Your task to perform on an android device: turn off javascript in the chrome app Image 0: 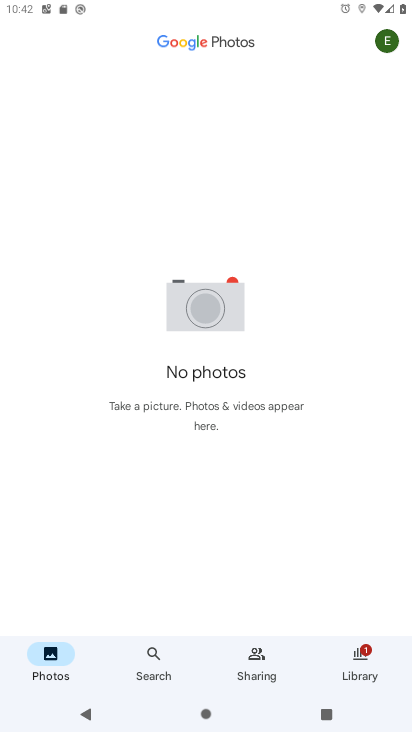
Step 0: press home button
Your task to perform on an android device: turn off javascript in the chrome app Image 1: 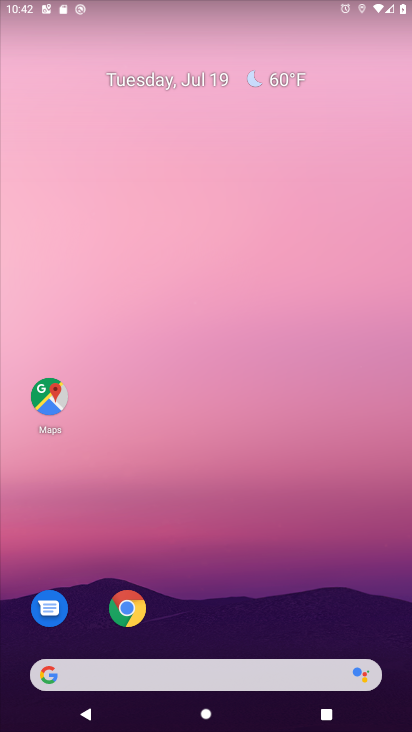
Step 1: click (135, 618)
Your task to perform on an android device: turn off javascript in the chrome app Image 2: 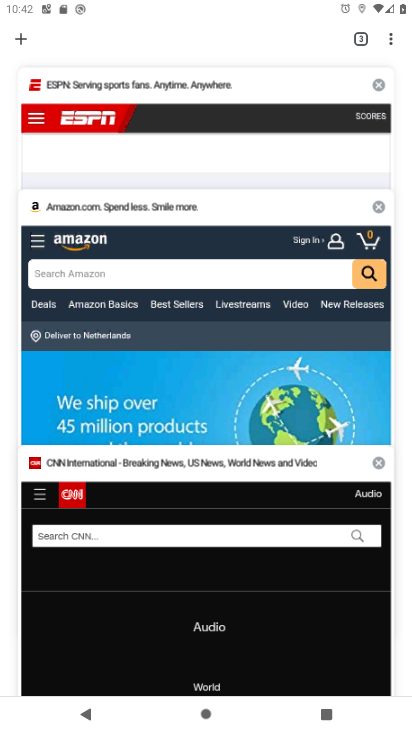
Step 2: click (135, 618)
Your task to perform on an android device: turn off javascript in the chrome app Image 3: 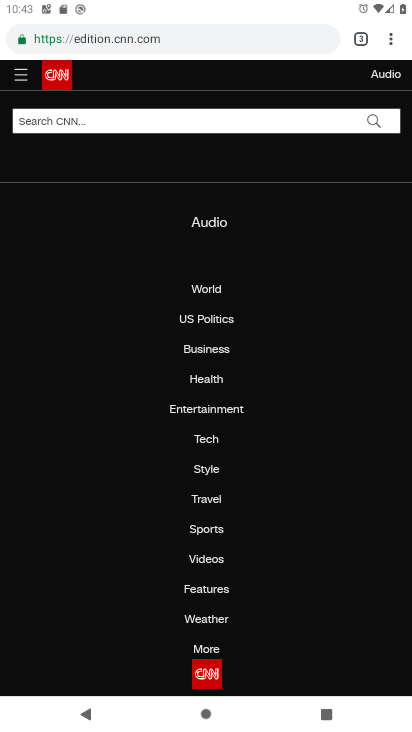
Step 3: click (393, 40)
Your task to perform on an android device: turn off javascript in the chrome app Image 4: 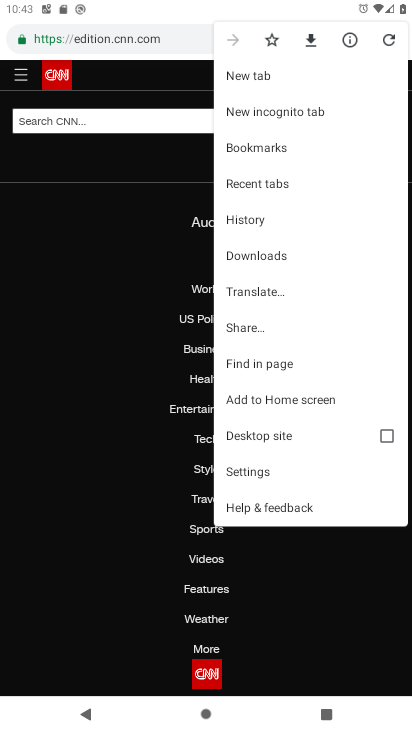
Step 4: click (247, 468)
Your task to perform on an android device: turn off javascript in the chrome app Image 5: 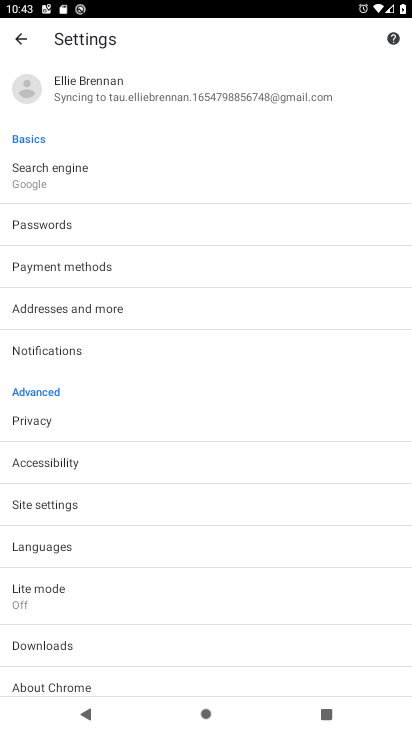
Step 5: click (111, 500)
Your task to perform on an android device: turn off javascript in the chrome app Image 6: 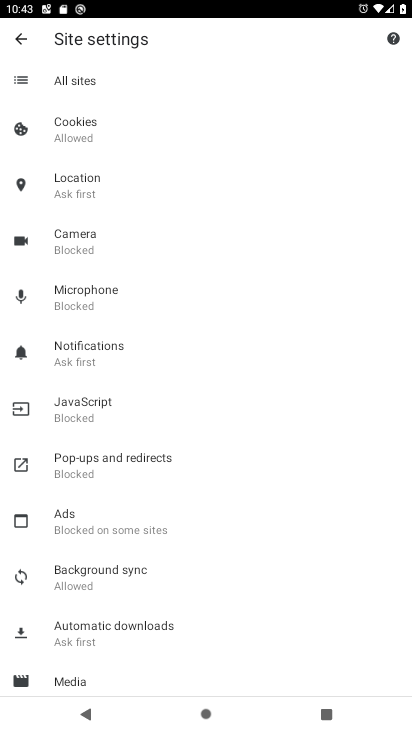
Step 6: click (17, 425)
Your task to perform on an android device: turn off javascript in the chrome app Image 7: 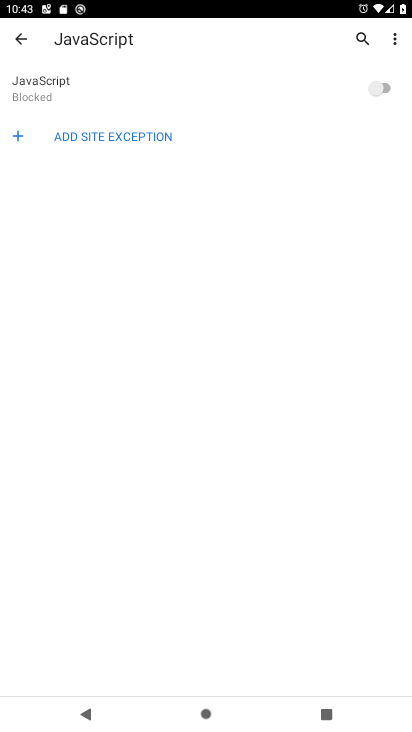
Step 7: task complete